Your task to perform on an android device: all mails in gmail Image 0: 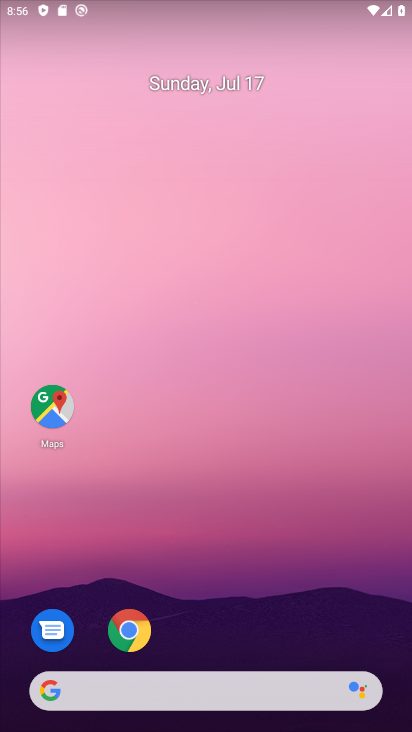
Step 0: drag from (258, 614) to (292, 199)
Your task to perform on an android device: all mails in gmail Image 1: 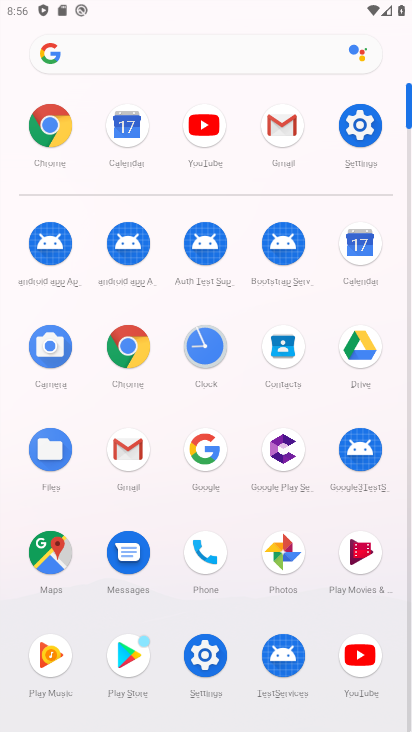
Step 1: click (295, 138)
Your task to perform on an android device: all mails in gmail Image 2: 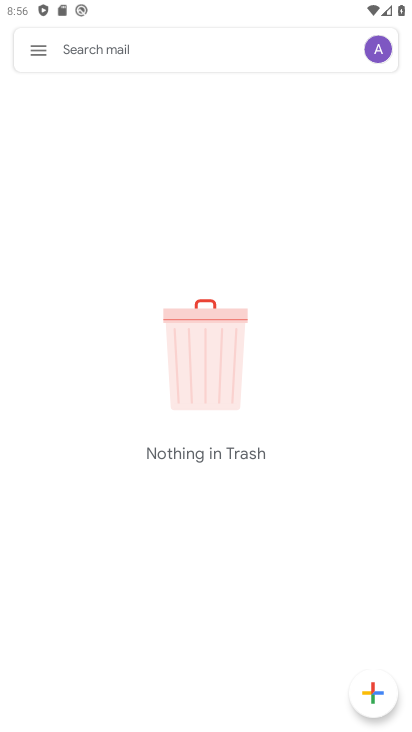
Step 2: press home button
Your task to perform on an android device: all mails in gmail Image 3: 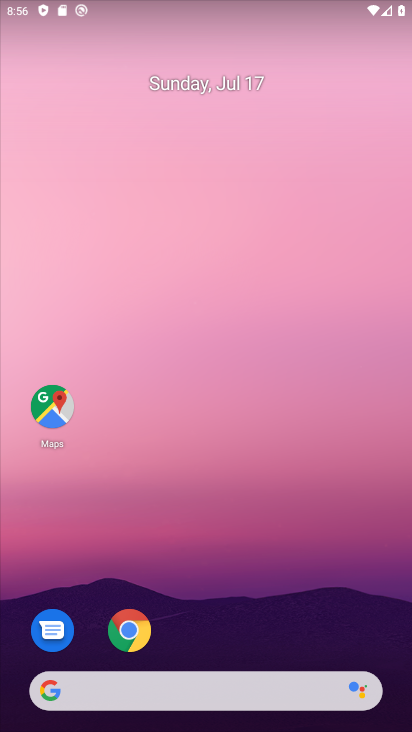
Step 3: drag from (223, 643) to (239, 203)
Your task to perform on an android device: all mails in gmail Image 4: 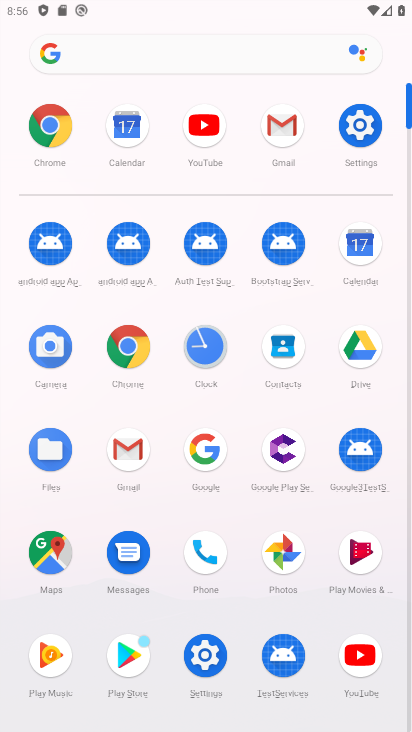
Step 4: click (130, 445)
Your task to perform on an android device: all mails in gmail Image 5: 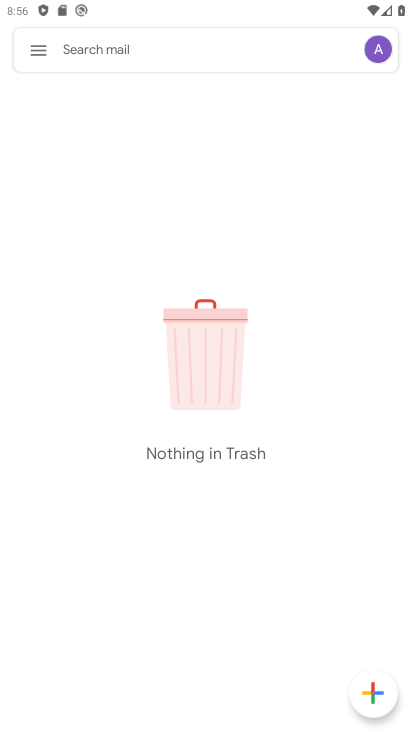
Step 5: click (28, 53)
Your task to perform on an android device: all mails in gmail Image 6: 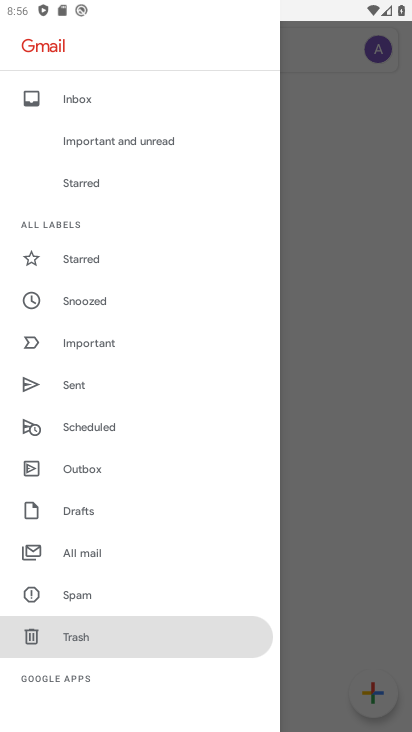
Step 6: click (103, 112)
Your task to perform on an android device: all mails in gmail Image 7: 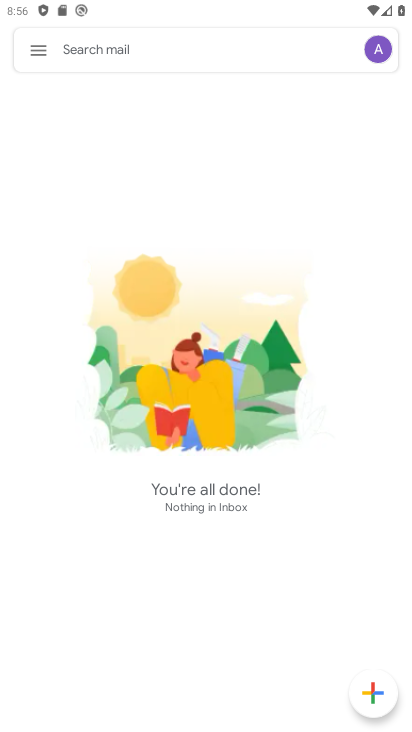
Step 7: task complete